Your task to perform on an android device: move an email to a new category in the gmail app Image 0: 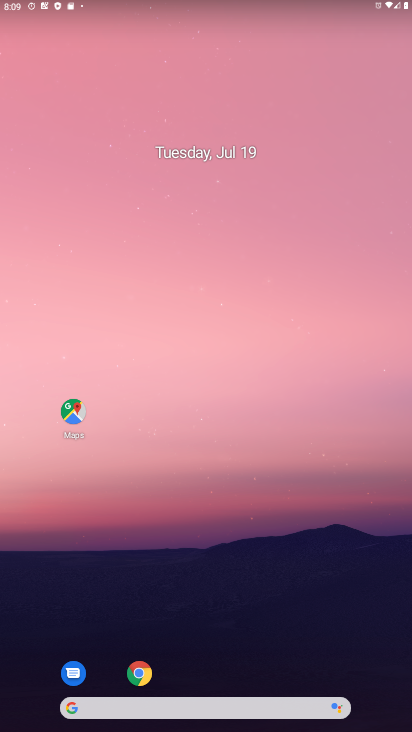
Step 0: drag from (291, 666) to (187, 15)
Your task to perform on an android device: move an email to a new category in the gmail app Image 1: 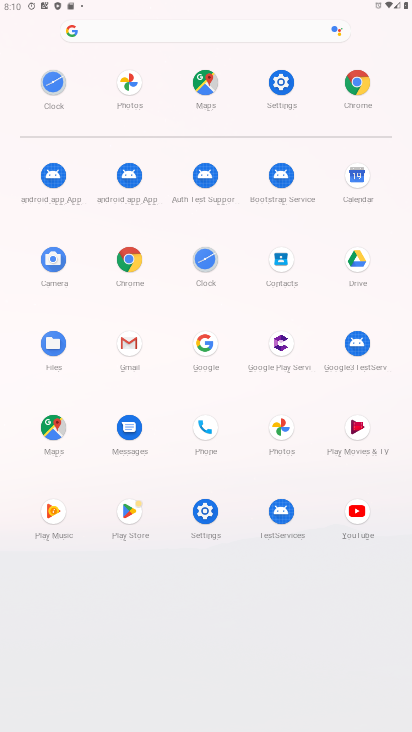
Step 1: click (135, 344)
Your task to perform on an android device: move an email to a new category in the gmail app Image 2: 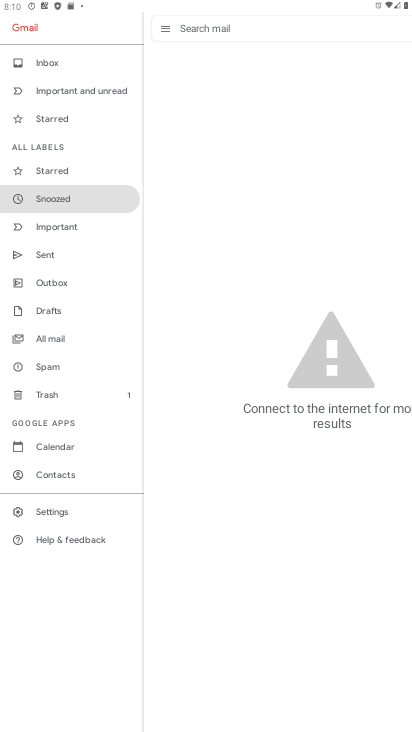
Step 2: click (40, 63)
Your task to perform on an android device: move an email to a new category in the gmail app Image 3: 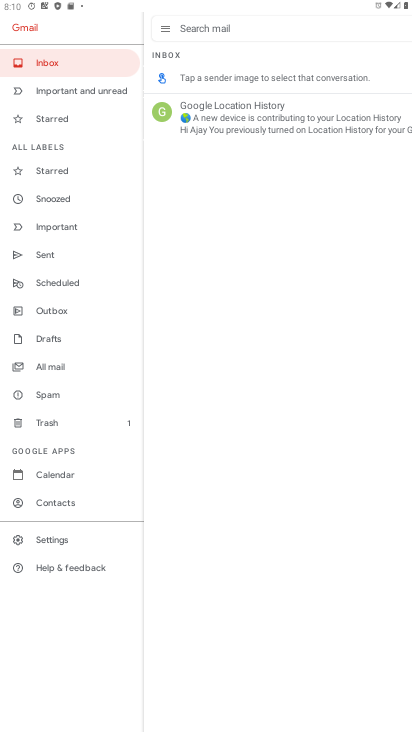
Step 3: click (223, 116)
Your task to perform on an android device: move an email to a new category in the gmail app Image 4: 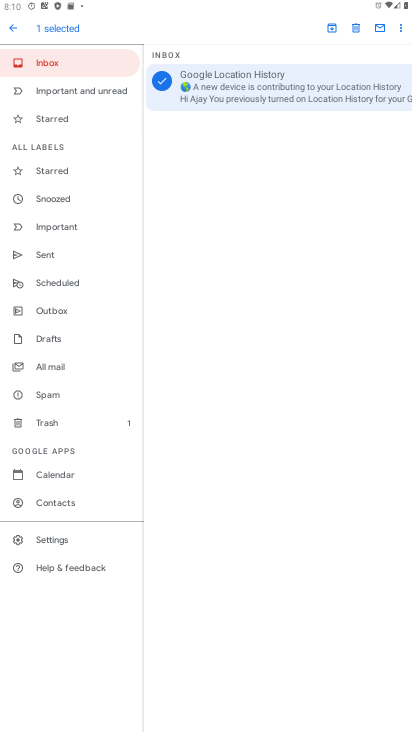
Step 4: click (163, 79)
Your task to perform on an android device: move an email to a new category in the gmail app Image 5: 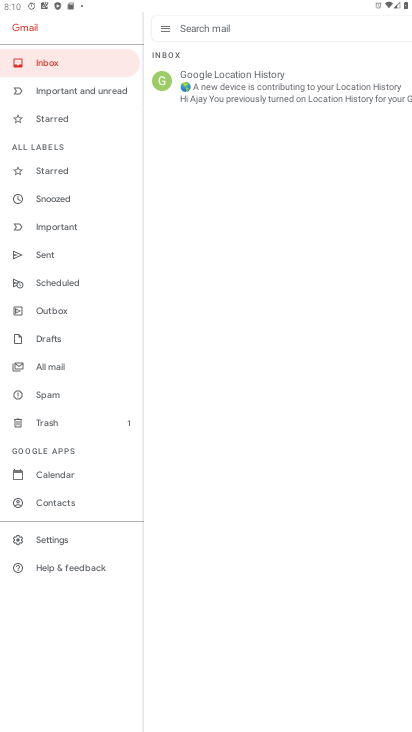
Step 5: click (296, 94)
Your task to perform on an android device: move an email to a new category in the gmail app Image 6: 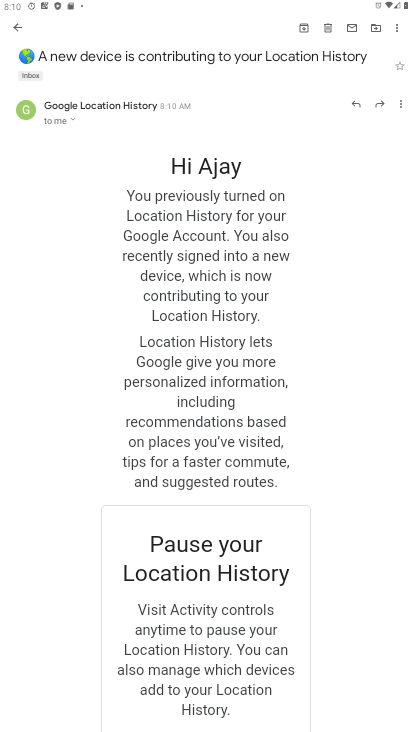
Step 6: click (400, 66)
Your task to perform on an android device: move an email to a new category in the gmail app Image 7: 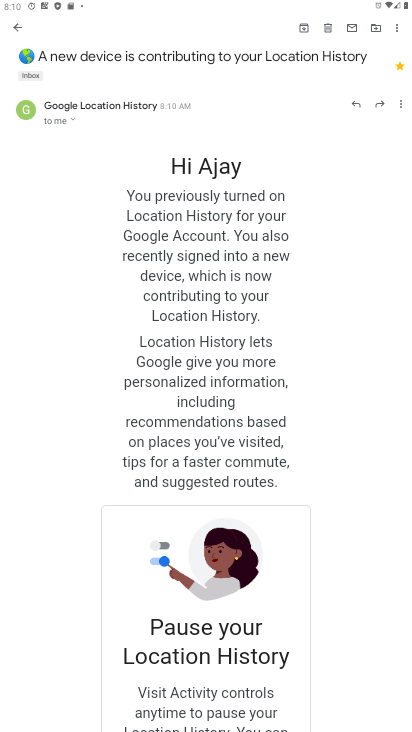
Step 7: task complete